Your task to perform on an android device: Toggle the flashlight Image 0: 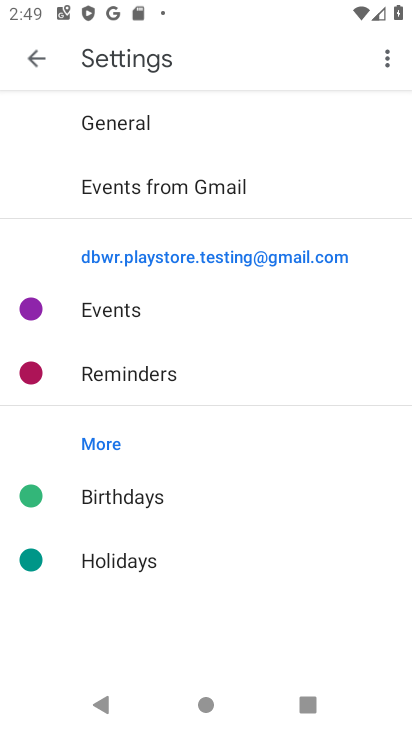
Step 0: press home button
Your task to perform on an android device: Toggle the flashlight Image 1: 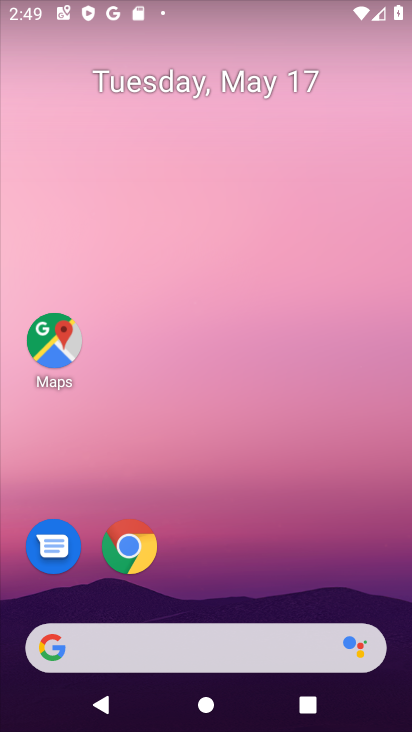
Step 1: drag from (407, 659) to (359, 327)
Your task to perform on an android device: Toggle the flashlight Image 2: 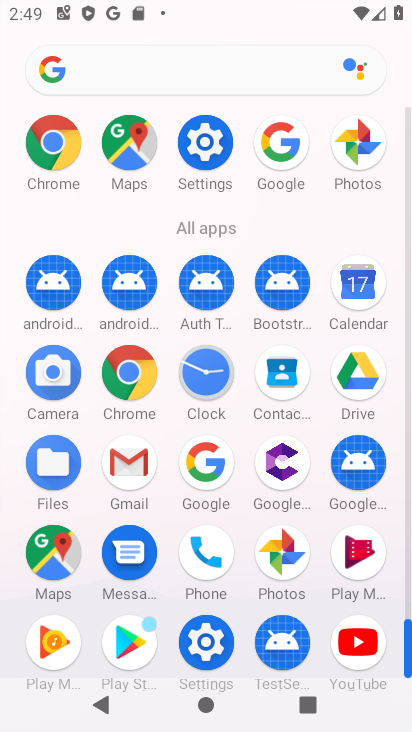
Step 2: click (203, 157)
Your task to perform on an android device: Toggle the flashlight Image 3: 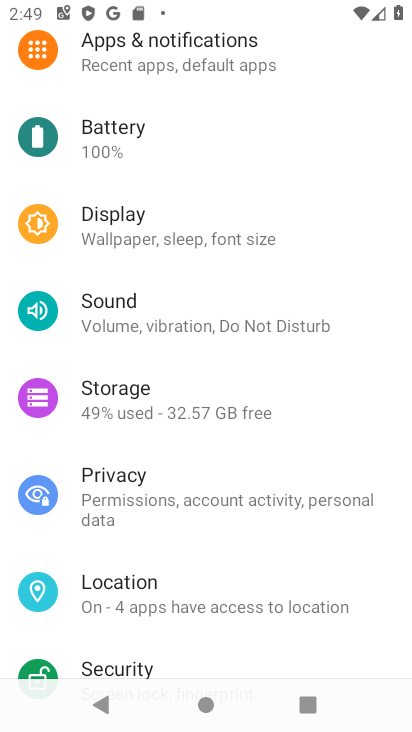
Step 3: click (114, 228)
Your task to perform on an android device: Toggle the flashlight Image 4: 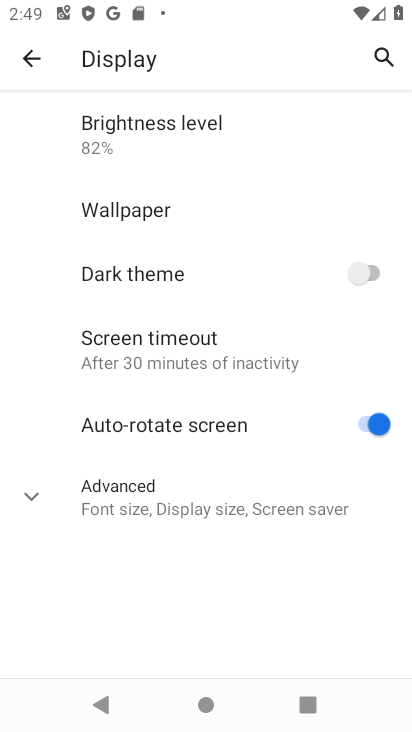
Step 4: task complete